Your task to perform on an android device: turn off translation in the chrome app Image 0: 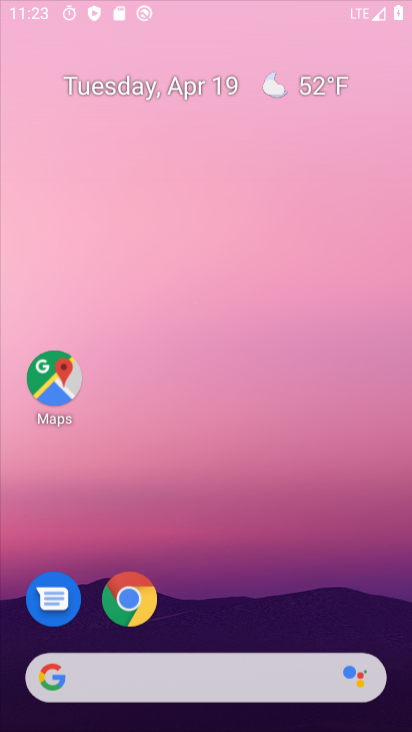
Step 0: click (183, 58)
Your task to perform on an android device: turn off translation in the chrome app Image 1: 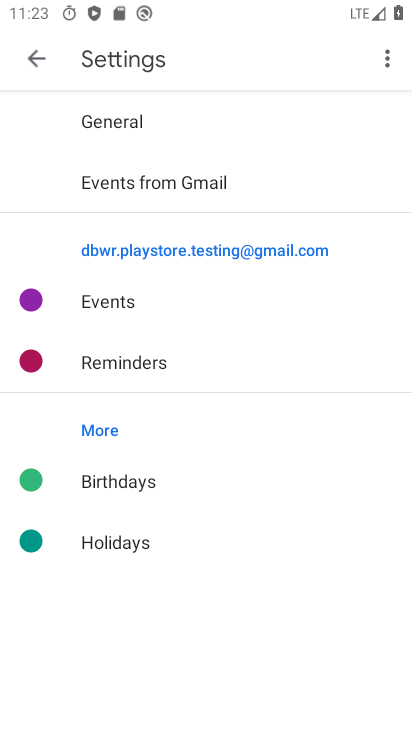
Step 1: press home button
Your task to perform on an android device: turn off translation in the chrome app Image 2: 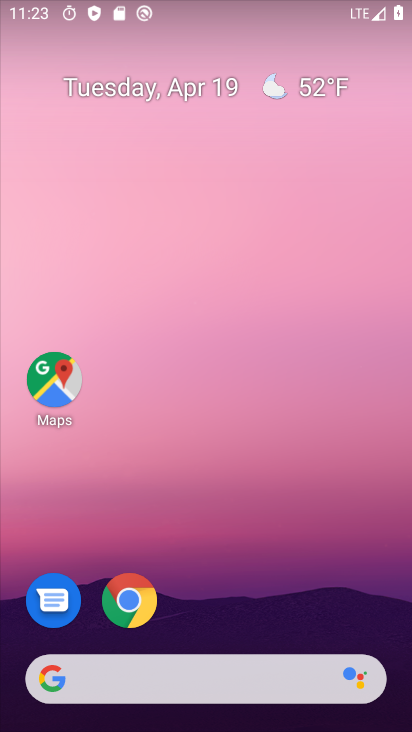
Step 2: drag from (218, 651) to (160, 36)
Your task to perform on an android device: turn off translation in the chrome app Image 3: 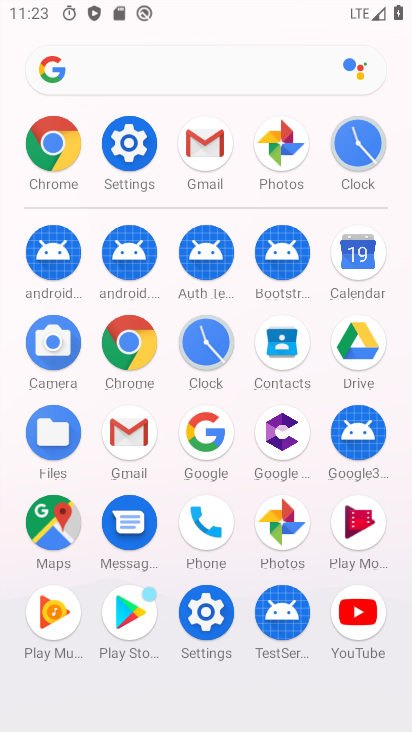
Step 3: click (125, 361)
Your task to perform on an android device: turn off translation in the chrome app Image 4: 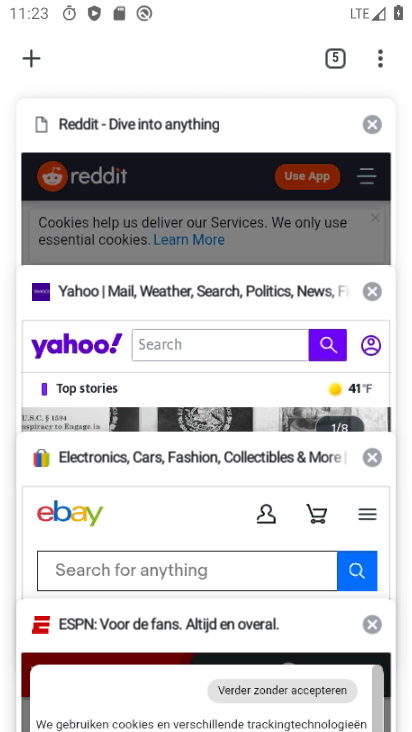
Step 4: click (378, 66)
Your task to perform on an android device: turn off translation in the chrome app Image 5: 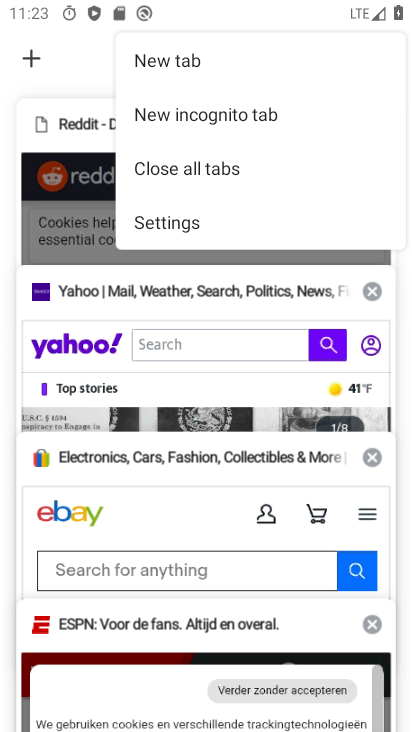
Step 5: click (176, 220)
Your task to perform on an android device: turn off translation in the chrome app Image 6: 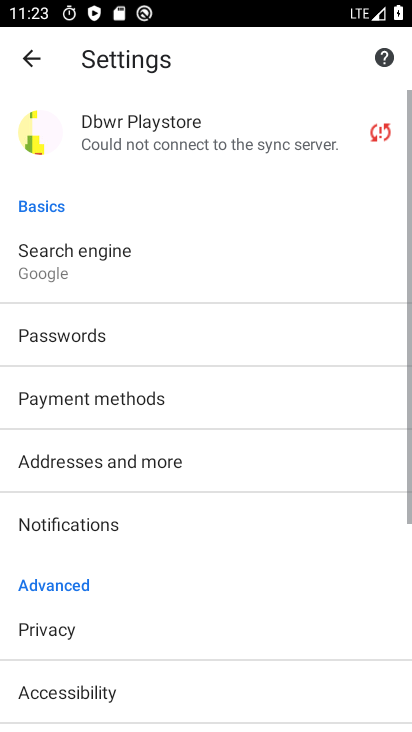
Step 6: drag from (124, 530) to (97, 182)
Your task to perform on an android device: turn off translation in the chrome app Image 7: 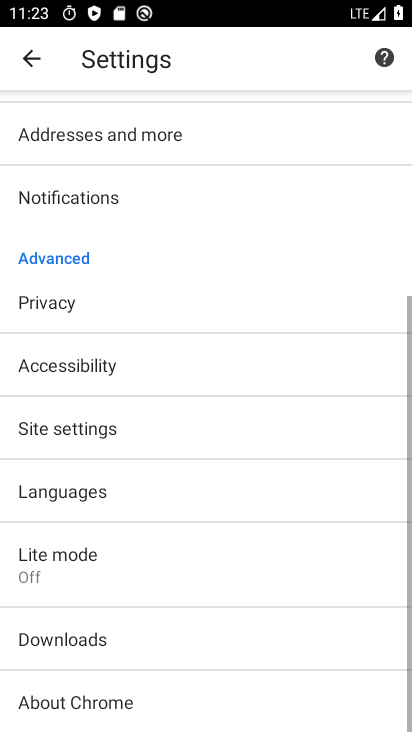
Step 7: click (78, 507)
Your task to perform on an android device: turn off translation in the chrome app Image 8: 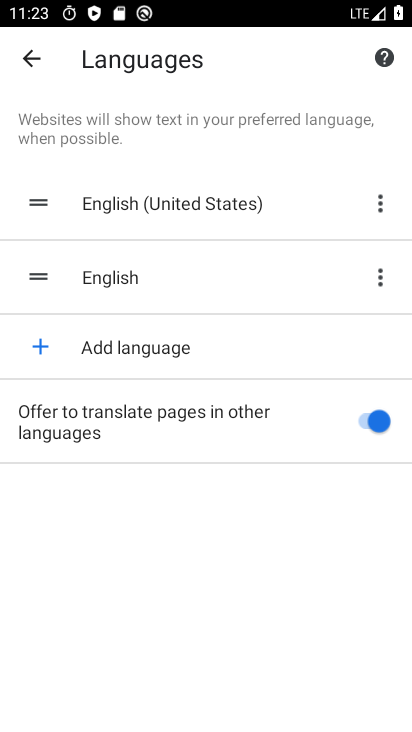
Step 8: click (371, 425)
Your task to perform on an android device: turn off translation in the chrome app Image 9: 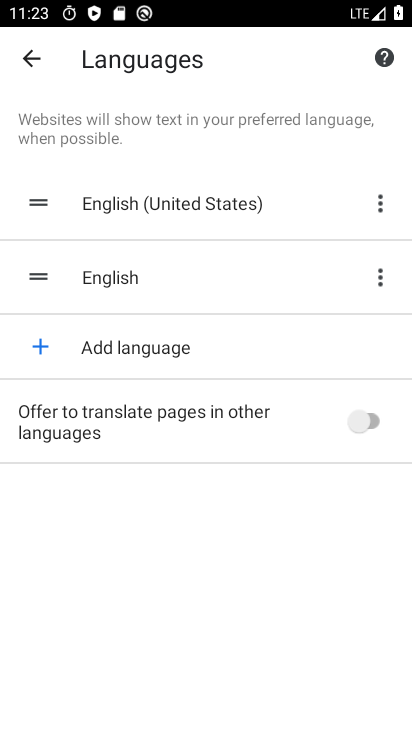
Step 9: task complete